Your task to perform on an android device: delete location history Image 0: 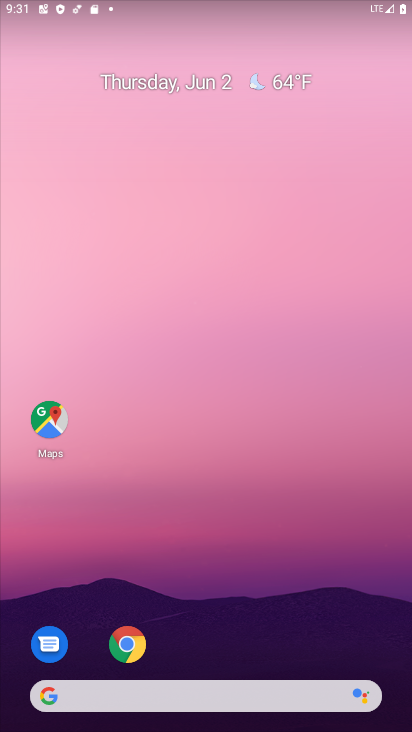
Step 0: press home button
Your task to perform on an android device: delete location history Image 1: 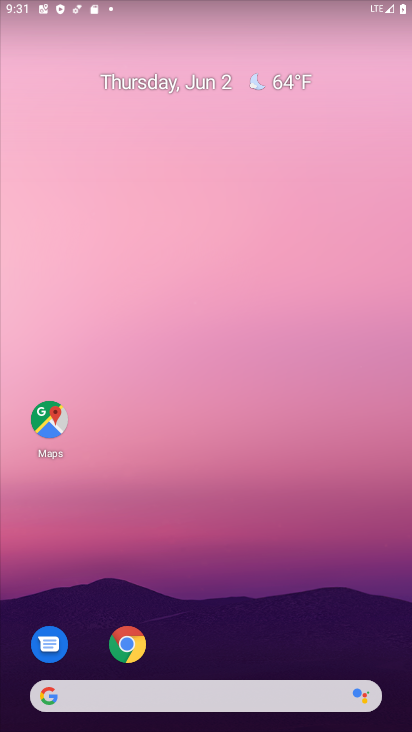
Step 1: click (313, 418)
Your task to perform on an android device: delete location history Image 2: 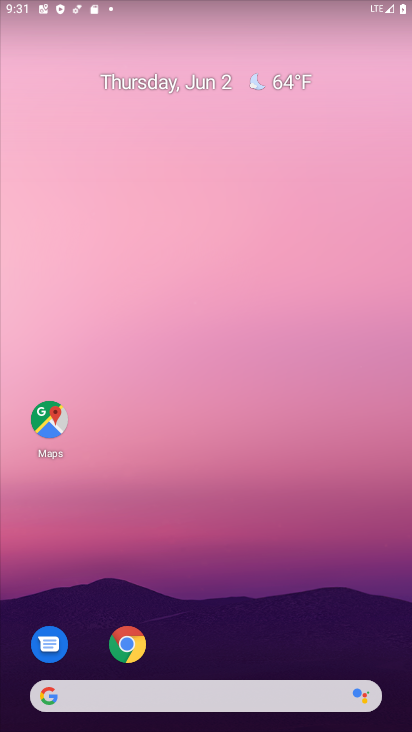
Step 2: click (53, 397)
Your task to perform on an android device: delete location history Image 3: 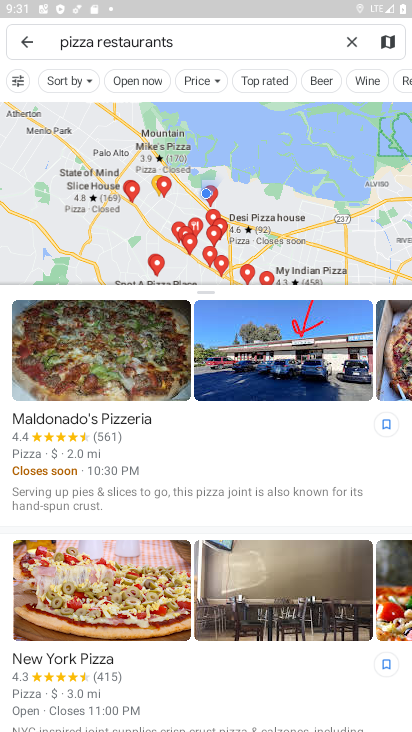
Step 3: click (23, 46)
Your task to perform on an android device: delete location history Image 4: 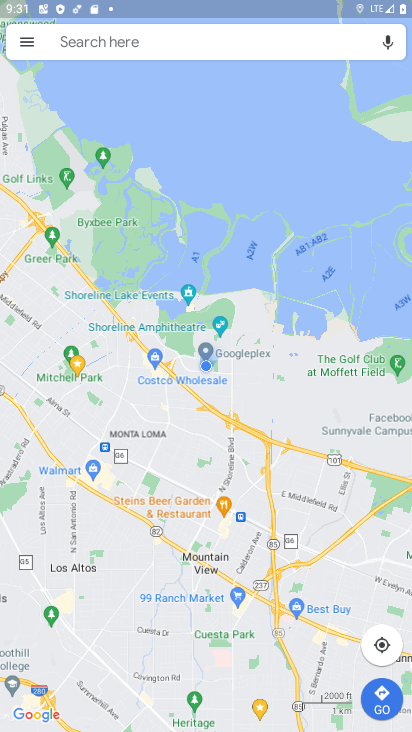
Step 4: click (23, 46)
Your task to perform on an android device: delete location history Image 5: 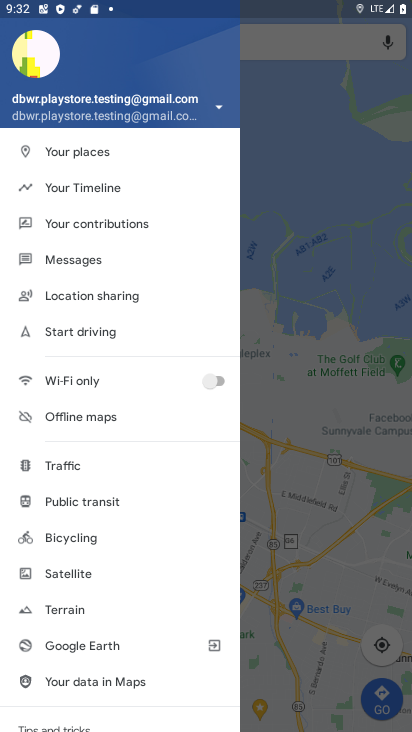
Step 5: click (123, 185)
Your task to perform on an android device: delete location history Image 6: 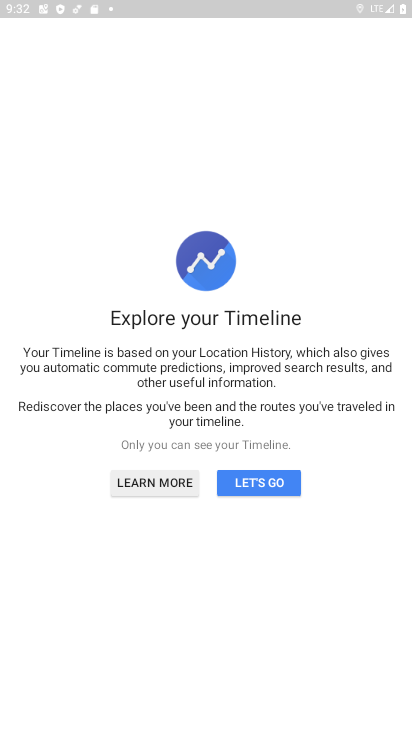
Step 6: drag from (193, 645) to (201, 561)
Your task to perform on an android device: delete location history Image 7: 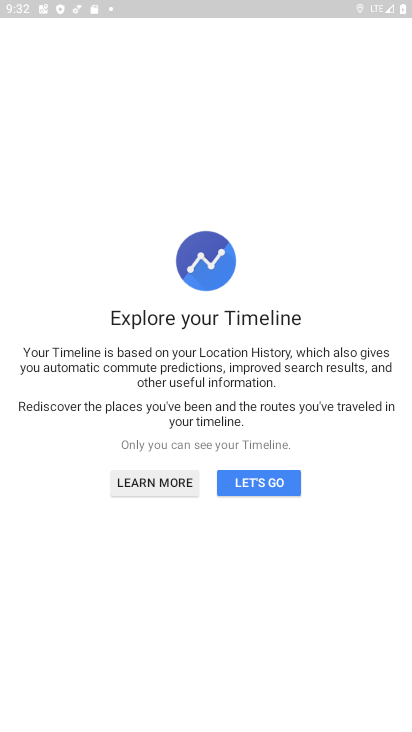
Step 7: click (259, 476)
Your task to perform on an android device: delete location history Image 8: 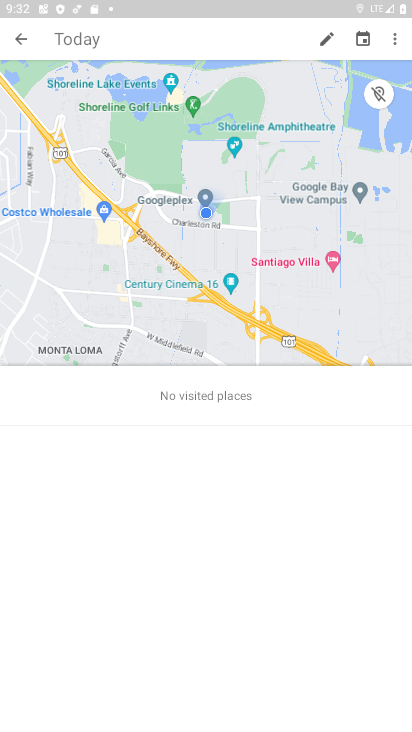
Step 8: click (392, 36)
Your task to perform on an android device: delete location history Image 9: 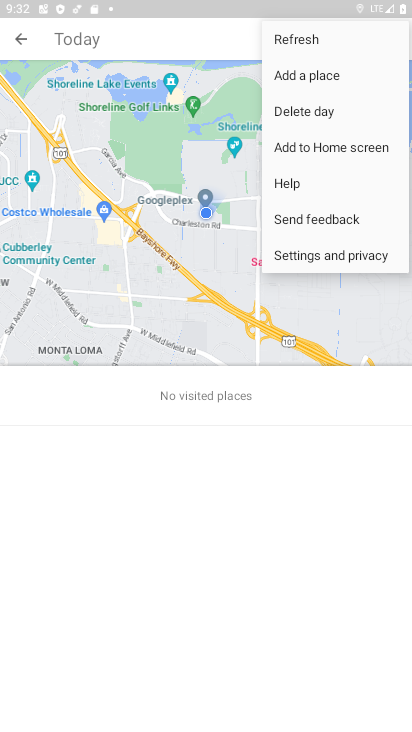
Step 9: click (307, 250)
Your task to perform on an android device: delete location history Image 10: 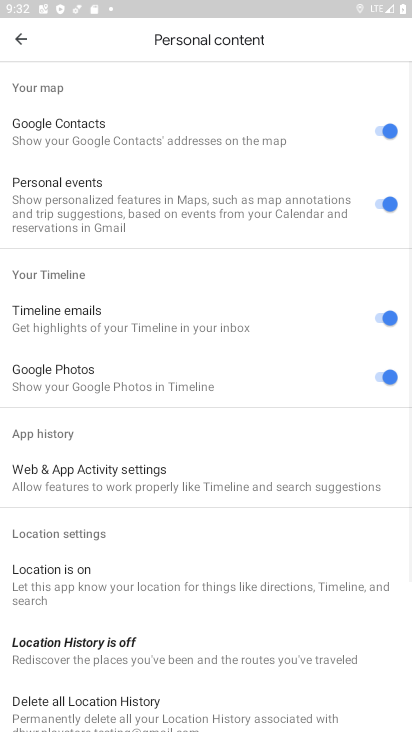
Step 10: drag from (116, 580) to (166, 265)
Your task to perform on an android device: delete location history Image 11: 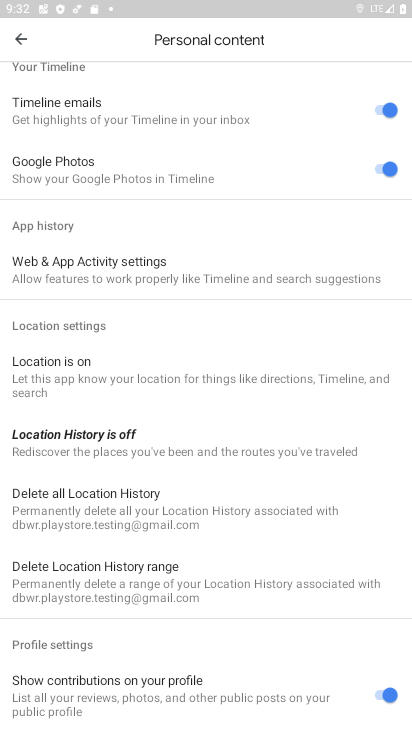
Step 11: click (114, 517)
Your task to perform on an android device: delete location history Image 12: 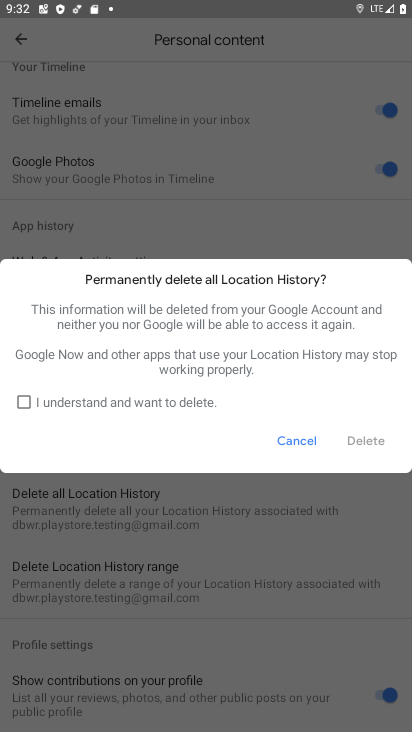
Step 12: click (147, 389)
Your task to perform on an android device: delete location history Image 13: 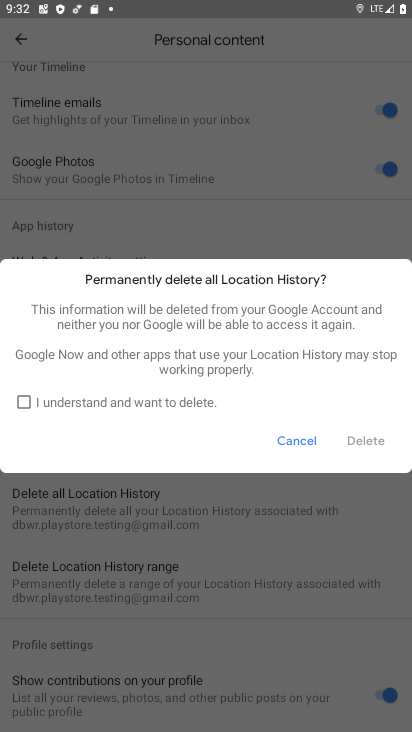
Step 13: click (202, 398)
Your task to perform on an android device: delete location history Image 14: 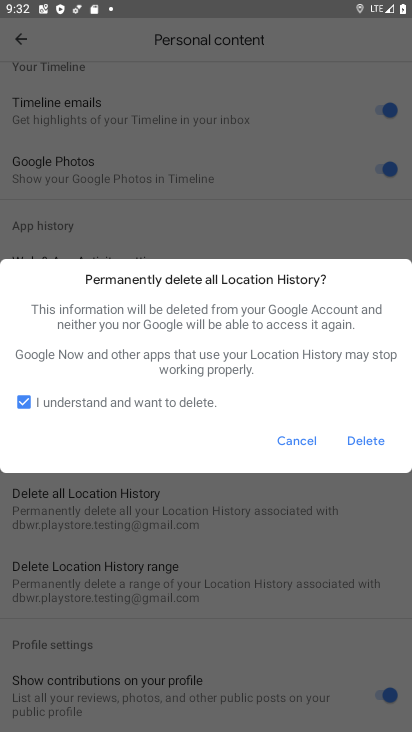
Step 14: click (365, 434)
Your task to perform on an android device: delete location history Image 15: 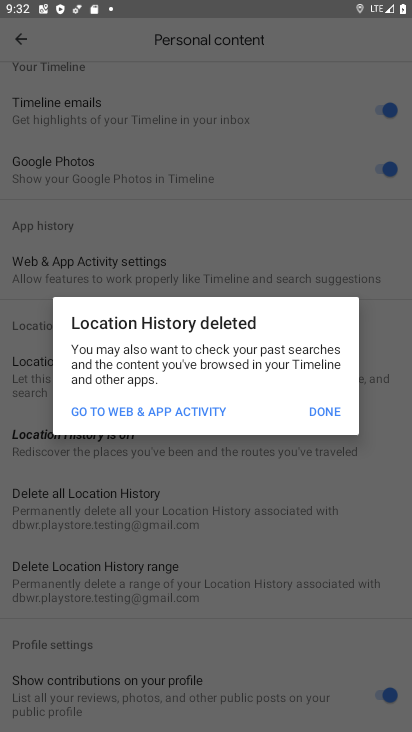
Step 15: click (331, 413)
Your task to perform on an android device: delete location history Image 16: 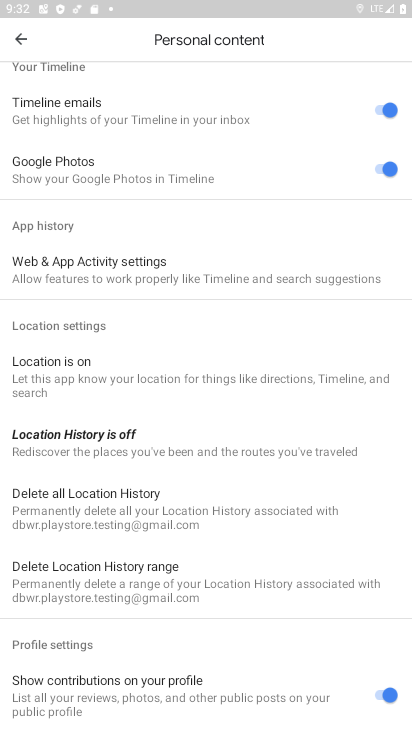
Step 16: task complete